Your task to perform on an android device: see tabs open on other devices in the chrome app Image 0: 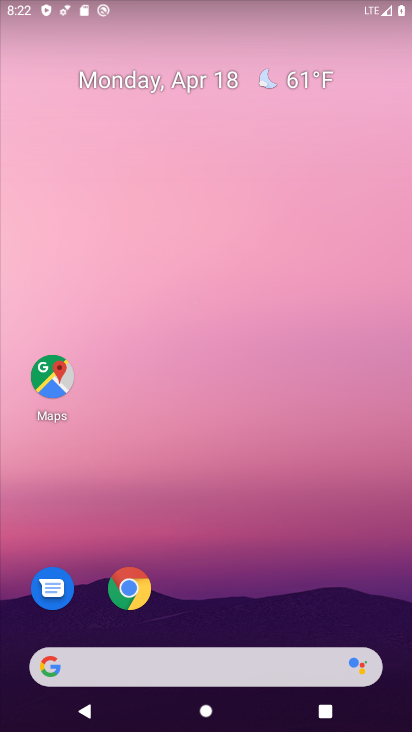
Step 0: click (128, 586)
Your task to perform on an android device: see tabs open on other devices in the chrome app Image 1: 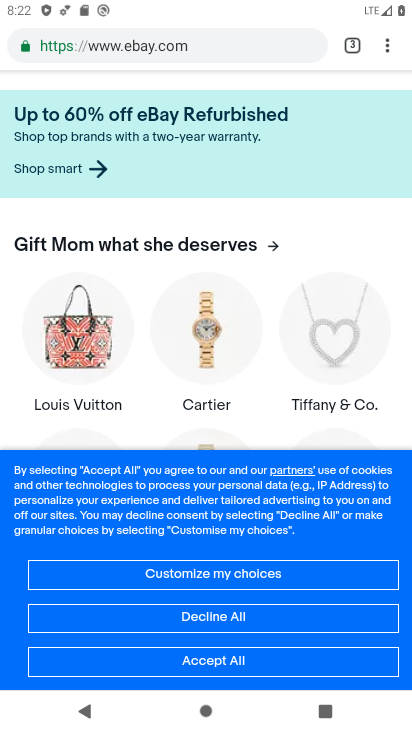
Step 1: click (383, 44)
Your task to perform on an android device: see tabs open on other devices in the chrome app Image 2: 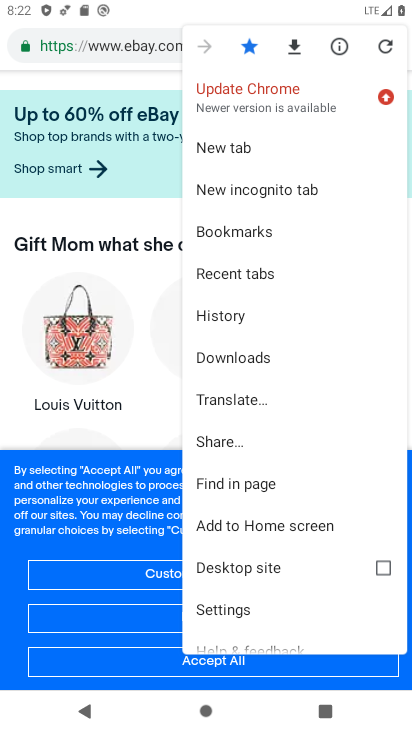
Step 2: click (222, 276)
Your task to perform on an android device: see tabs open on other devices in the chrome app Image 3: 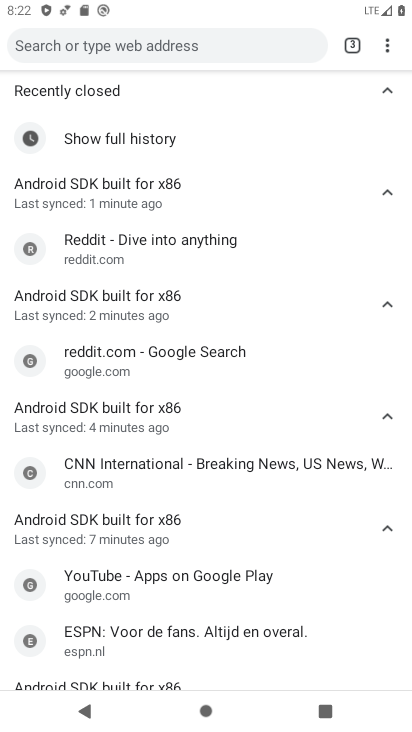
Step 3: task complete